Your task to perform on an android device: toggle notification dots Image 0: 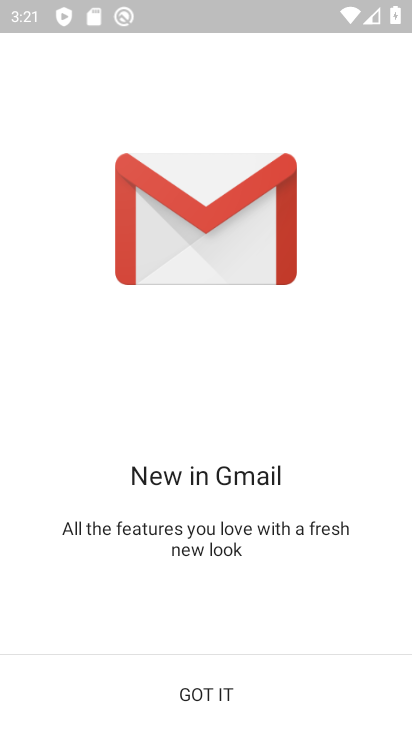
Step 0: press home button
Your task to perform on an android device: toggle notification dots Image 1: 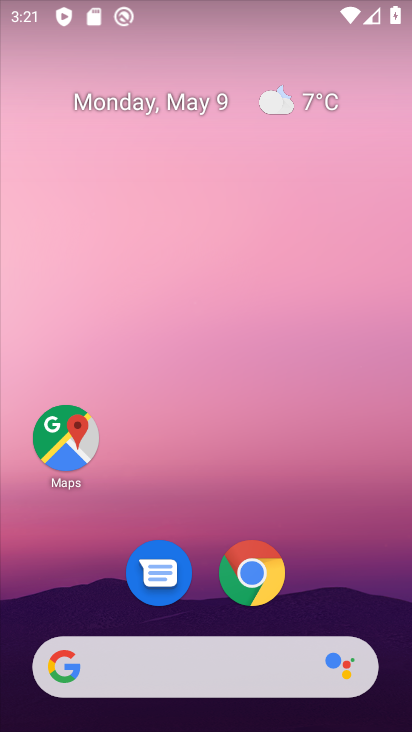
Step 1: drag from (358, 629) to (404, 12)
Your task to perform on an android device: toggle notification dots Image 2: 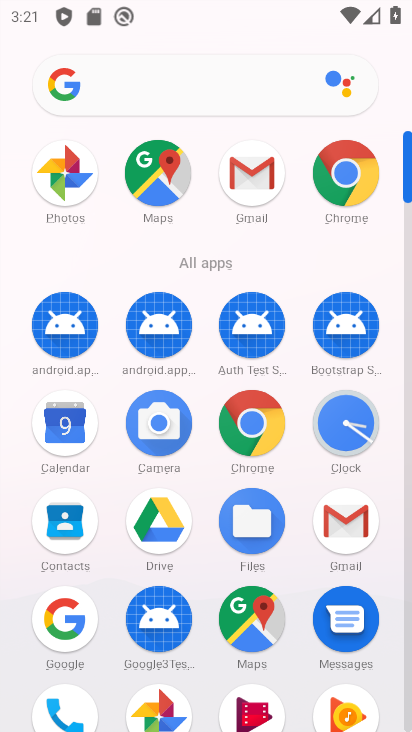
Step 2: drag from (409, 542) to (404, 487)
Your task to perform on an android device: toggle notification dots Image 3: 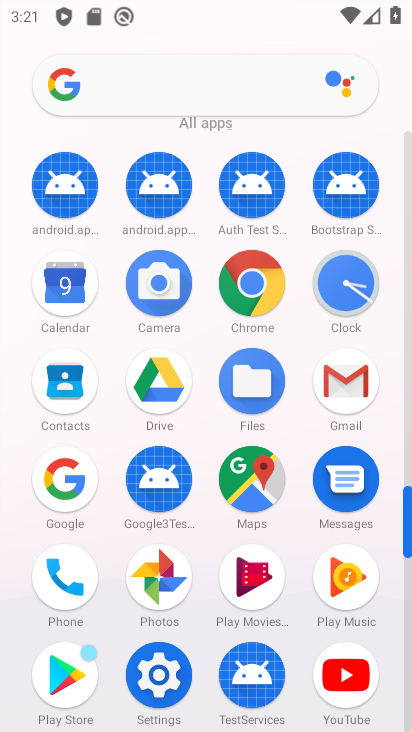
Step 3: click (163, 679)
Your task to perform on an android device: toggle notification dots Image 4: 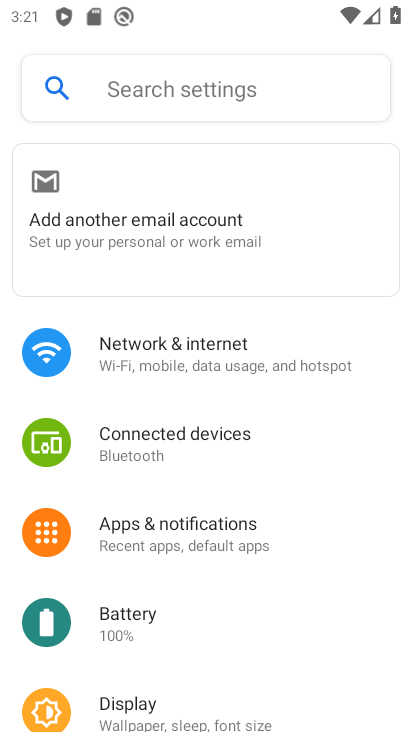
Step 4: click (191, 542)
Your task to perform on an android device: toggle notification dots Image 5: 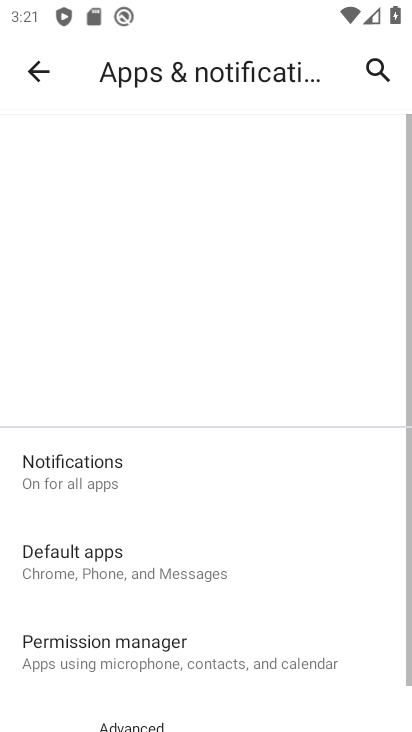
Step 5: drag from (242, 622) to (238, 385)
Your task to perform on an android device: toggle notification dots Image 6: 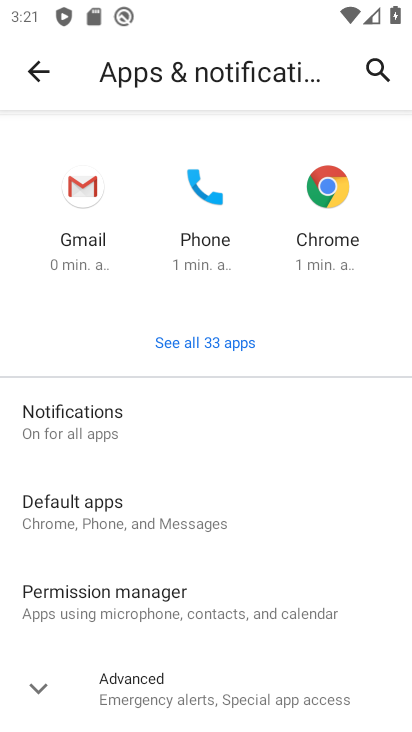
Step 6: click (45, 426)
Your task to perform on an android device: toggle notification dots Image 7: 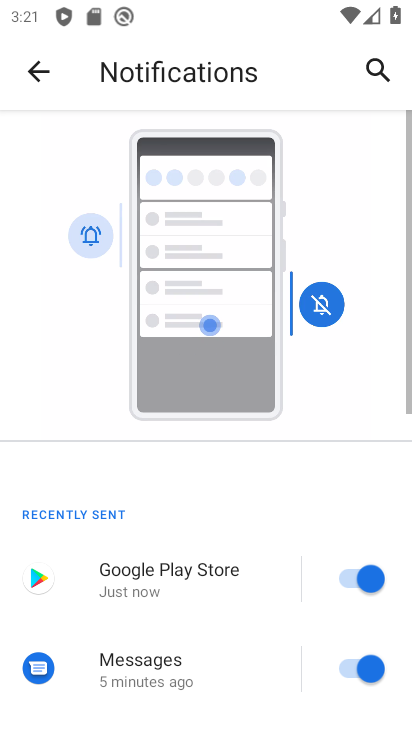
Step 7: drag from (225, 558) to (174, 94)
Your task to perform on an android device: toggle notification dots Image 8: 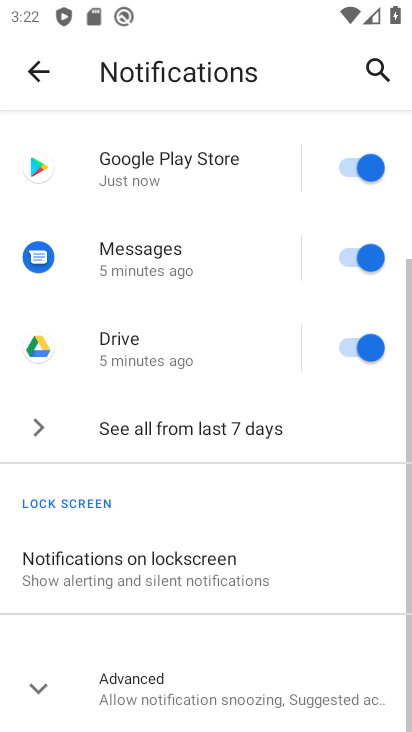
Step 8: drag from (148, 650) to (137, 177)
Your task to perform on an android device: toggle notification dots Image 9: 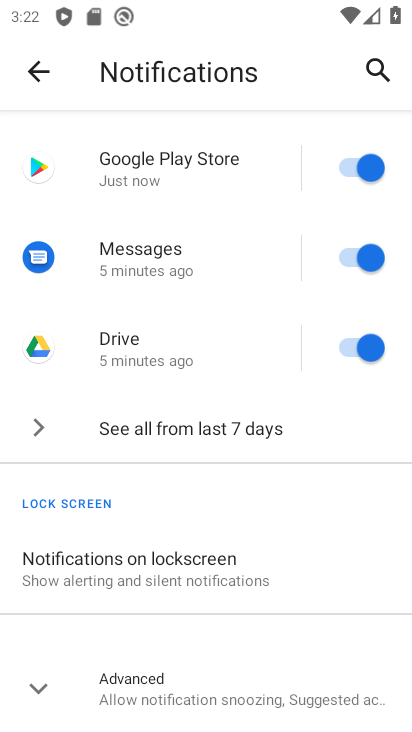
Step 9: click (37, 698)
Your task to perform on an android device: toggle notification dots Image 10: 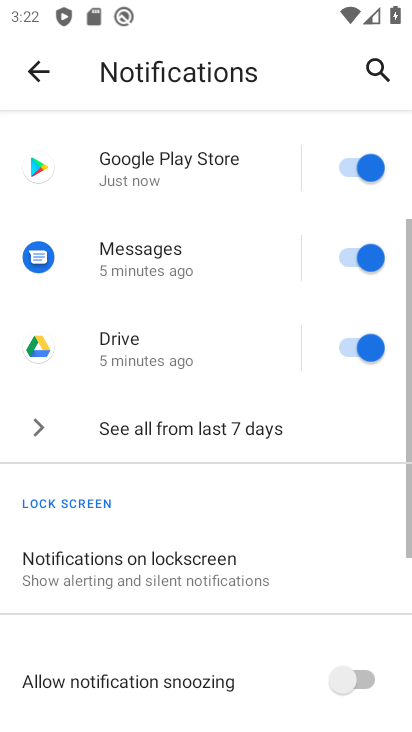
Step 10: drag from (152, 686) to (155, 115)
Your task to perform on an android device: toggle notification dots Image 11: 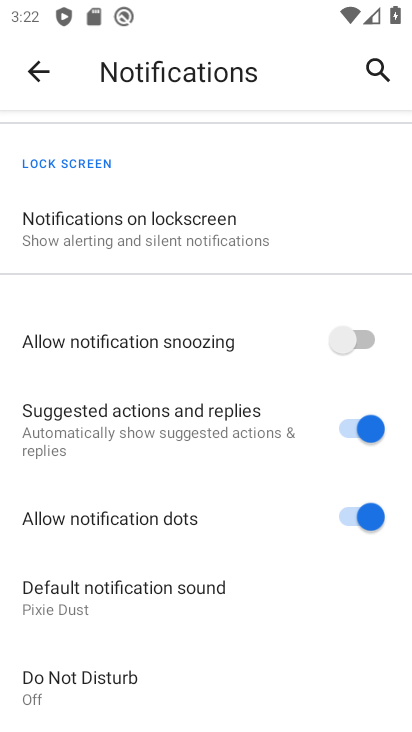
Step 11: click (367, 525)
Your task to perform on an android device: toggle notification dots Image 12: 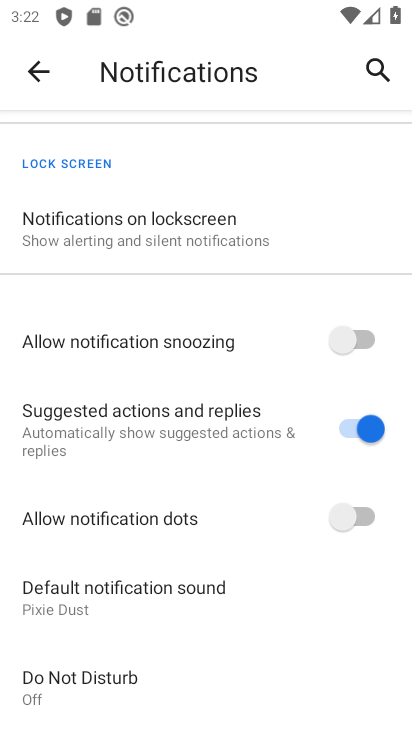
Step 12: task complete